Your task to perform on an android device: star an email in the gmail app Image 0: 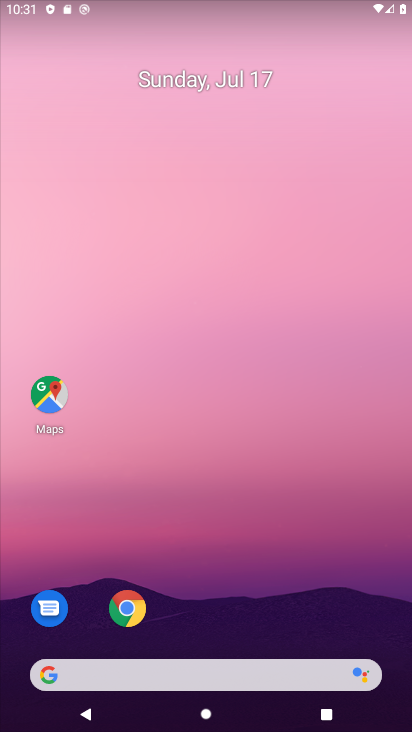
Step 0: drag from (238, 609) to (126, 131)
Your task to perform on an android device: star an email in the gmail app Image 1: 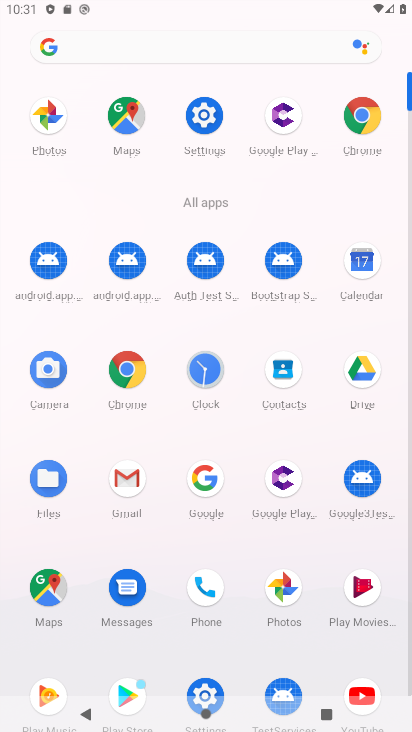
Step 1: click (126, 479)
Your task to perform on an android device: star an email in the gmail app Image 2: 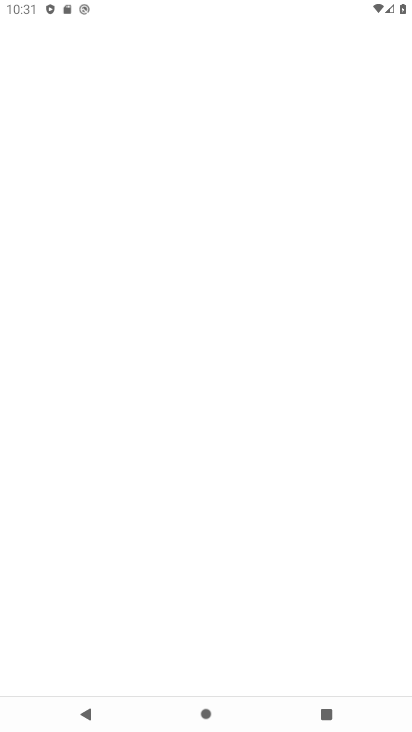
Step 2: click (126, 479)
Your task to perform on an android device: star an email in the gmail app Image 3: 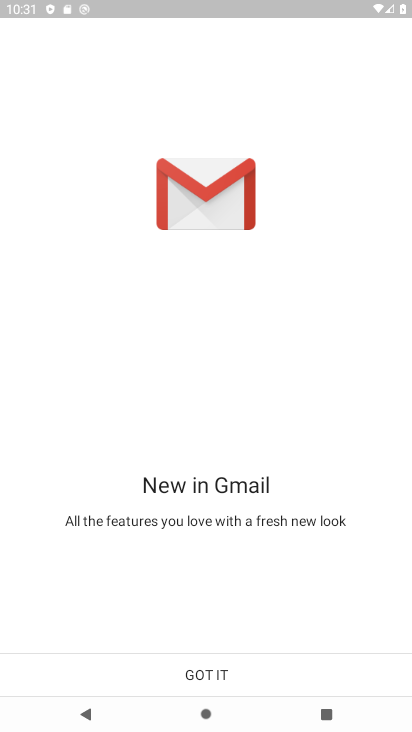
Step 3: click (207, 663)
Your task to perform on an android device: star an email in the gmail app Image 4: 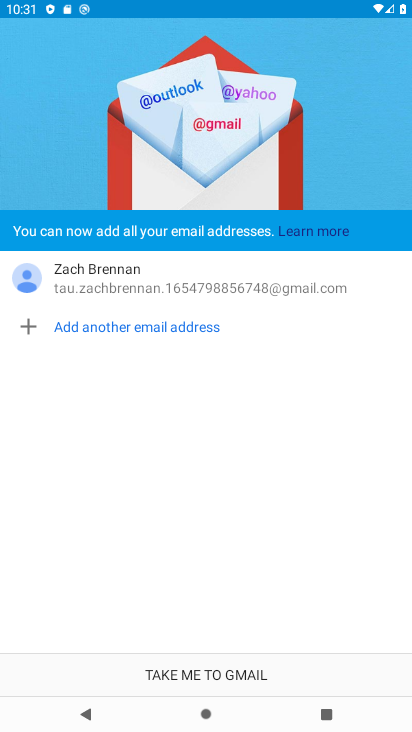
Step 4: click (216, 678)
Your task to perform on an android device: star an email in the gmail app Image 5: 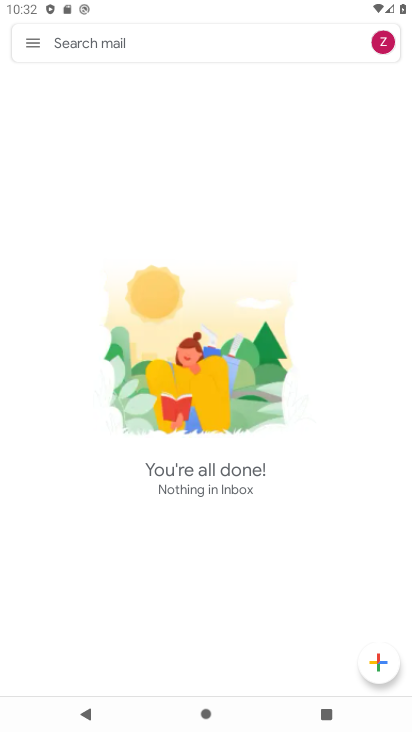
Step 5: click (32, 43)
Your task to perform on an android device: star an email in the gmail app Image 6: 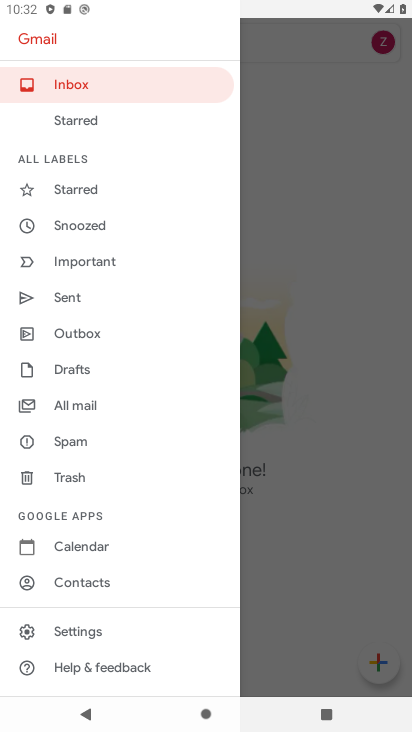
Step 6: click (142, 400)
Your task to perform on an android device: star an email in the gmail app Image 7: 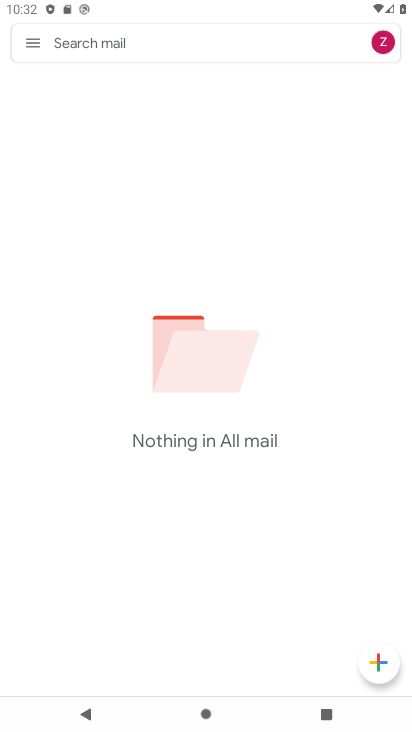
Step 7: task complete